Your task to perform on an android device: Open sound settings Image 0: 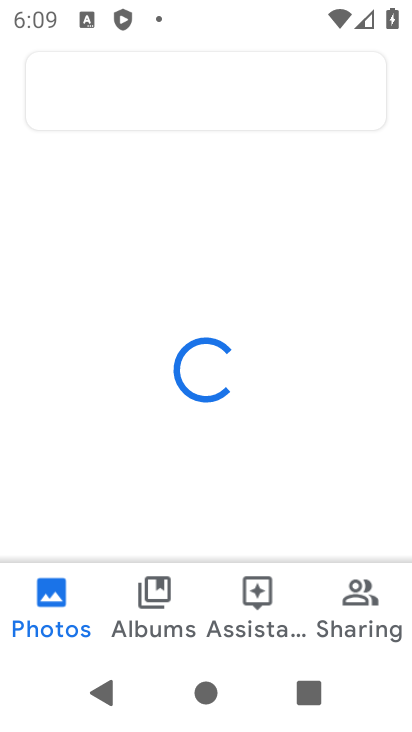
Step 0: press home button
Your task to perform on an android device: Open sound settings Image 1: 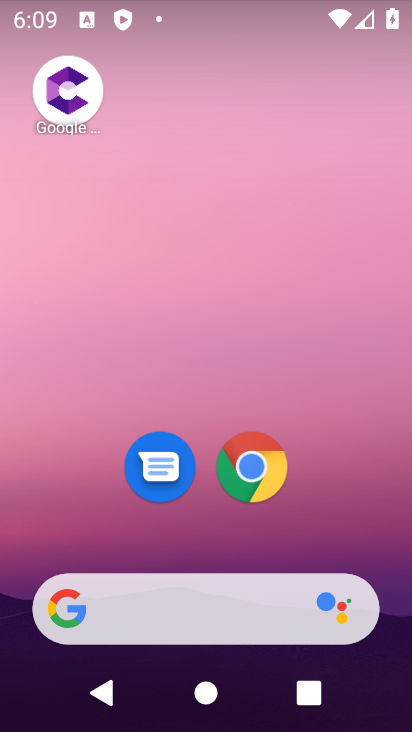
Step 1: drag from (296, 452) to (186, 21)
Your task to perform on an android device: Open sound settings Image 2: 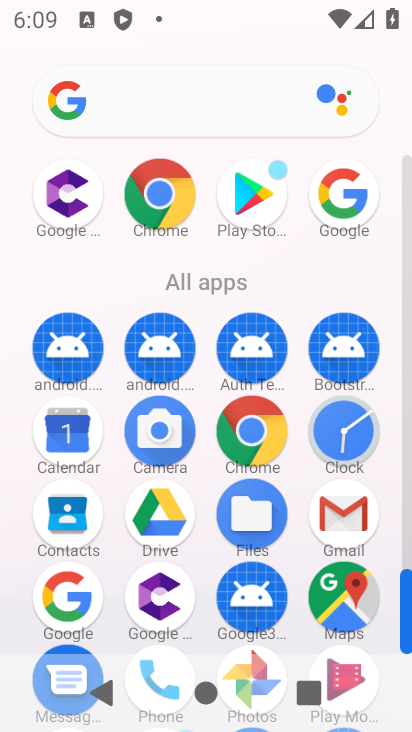
Step 2: drag from (211, 359) to (207, 133)
Your task to perform on an android device: Open sound settings Image 3: 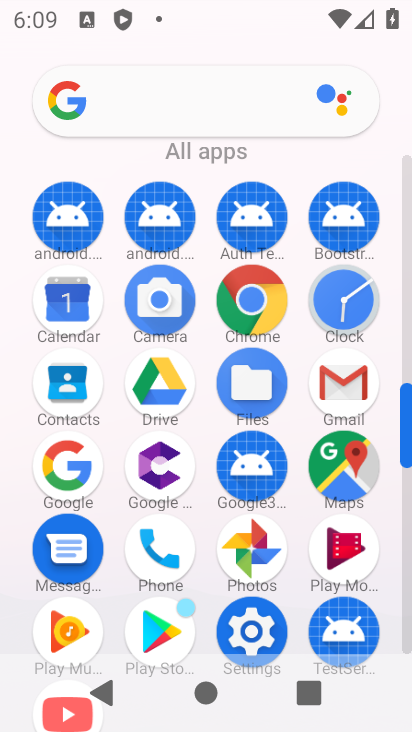
Step 3: click (270, 628)
Your task to perform on an android device: Open sound settings Image 4: 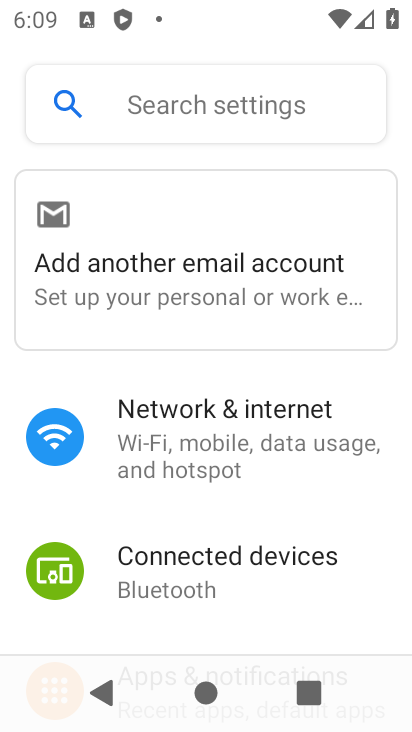
Step 4: drag from (290, 465) to (276, 119)
Your task to perform on an android device: Open sound settings Image 5: 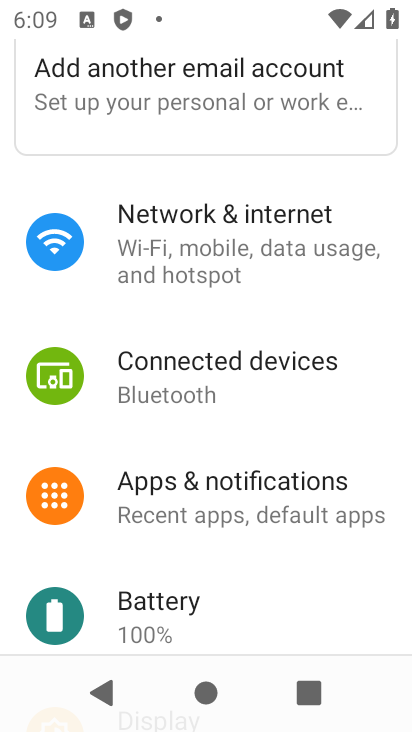
Step 5: drag from (231, 516) to (211, 99)
Your task to perform on an android device: Open sound settings Image 6: 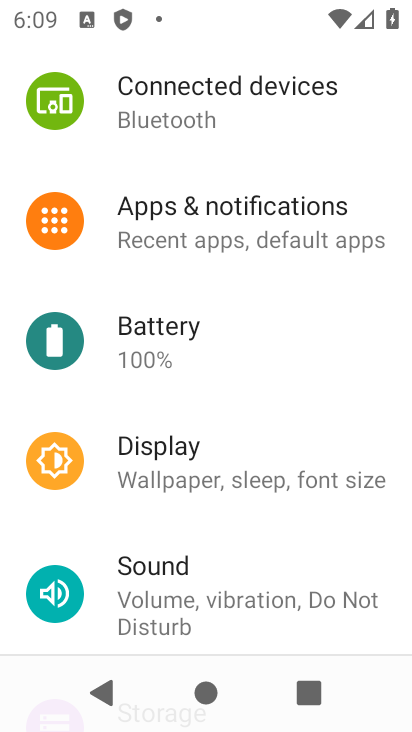
Step 6: click (212, 577)
Your task to perform on an android device: Open sound settings Image 7: 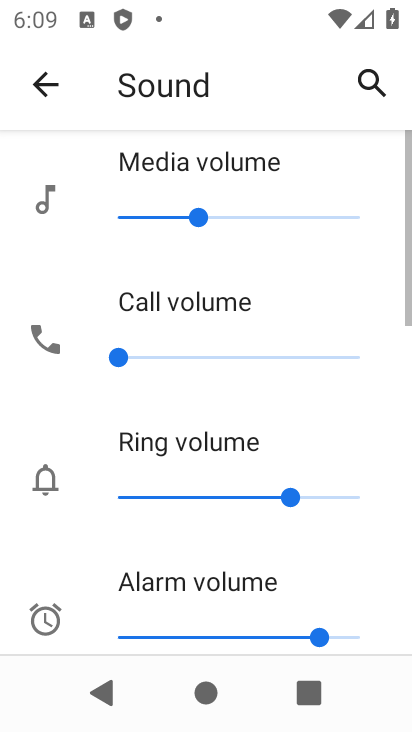
Step 7: task complete